Your task to perform on an android device: Open my contact list Image 0: 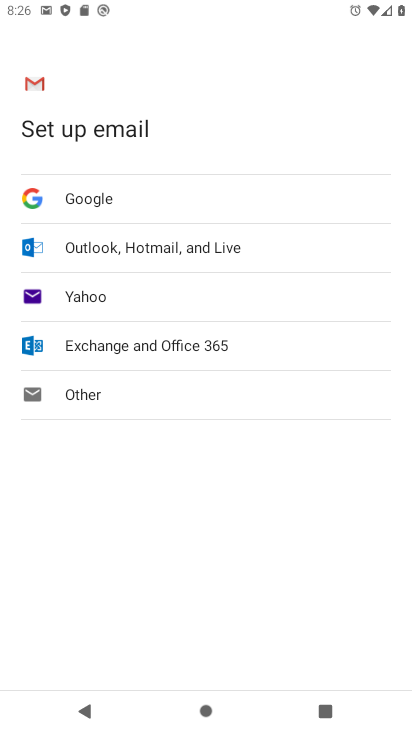
Step 0: press home button
Your task to perform on an android device: Open my contact list Image 1: 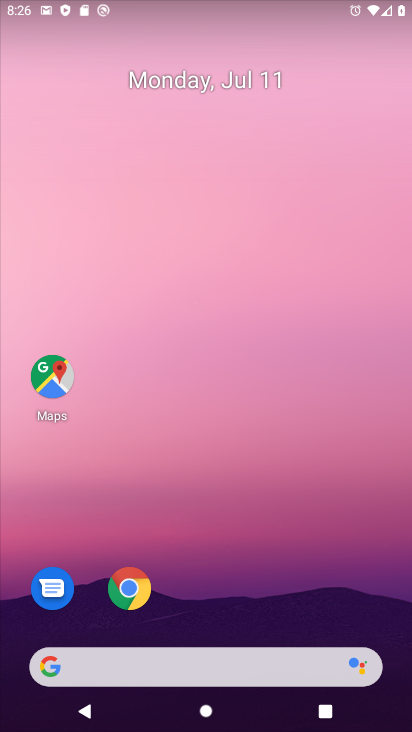
Step 1: drag from (206, 674) to (350, 172)
Your task to perform on an android device: Open my contact list Image 2: 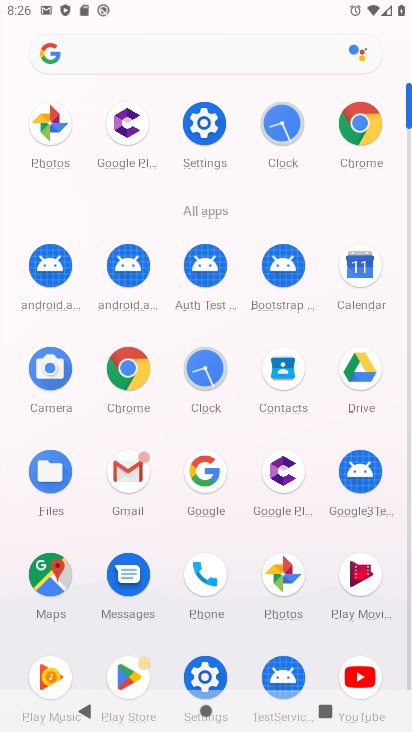
Step 2: click (283, 379)
Your task to perform on an android device: Open my contact list Image 3: 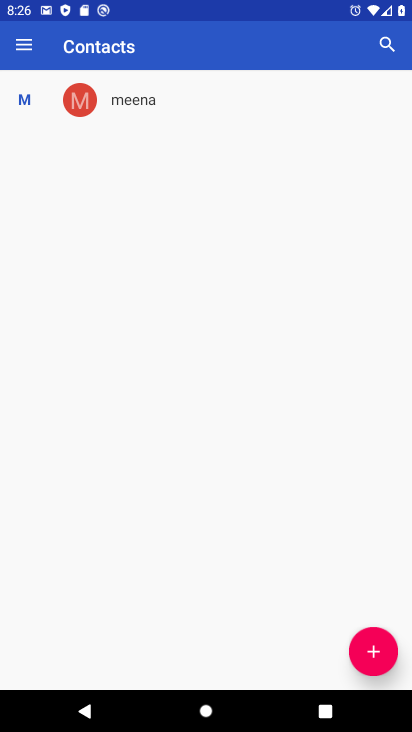
Step 3: task complete